Your task to perform on an android device: read, delete, or share a saved page in the chrome app Image 0: 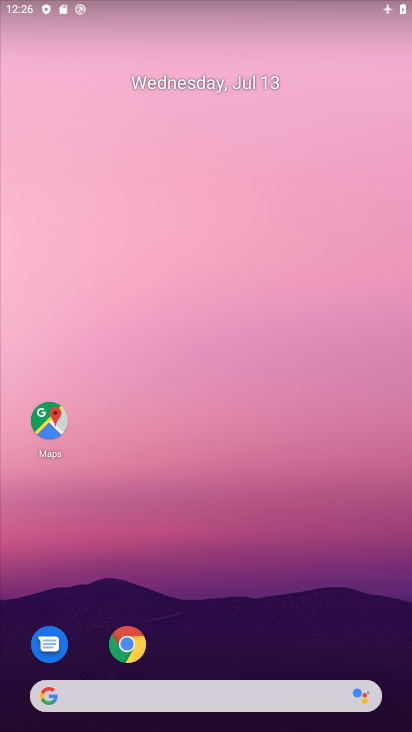
Step 0: drag from (269, 616) to (250, 172)
Your task to perform on an android device: read, delete, or share a saved page in the chrome app Image 1: 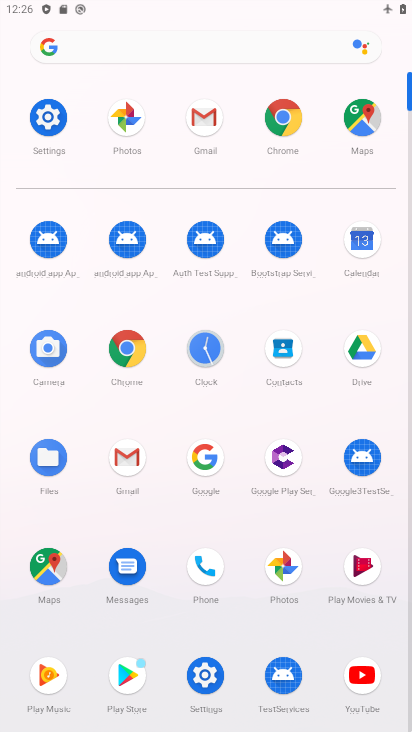
Step 1: click (130, 346)
Your task to perform on an android device: read, delete, or share a saved page in the chrome app Image 2: 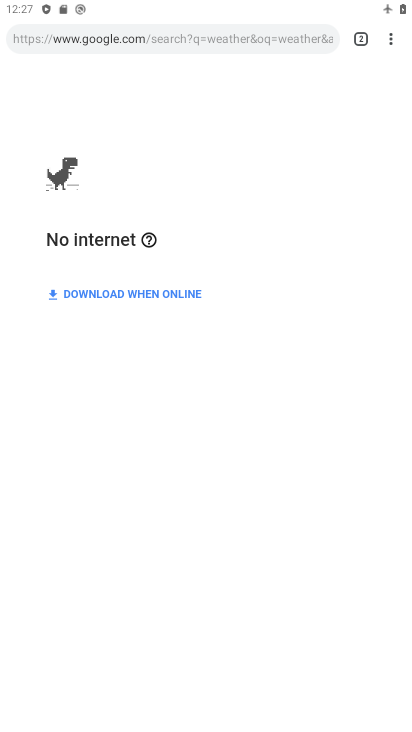
Step 2: task complete